Your task to perform on an android device: turn off javascript in the chrome app Image 0: 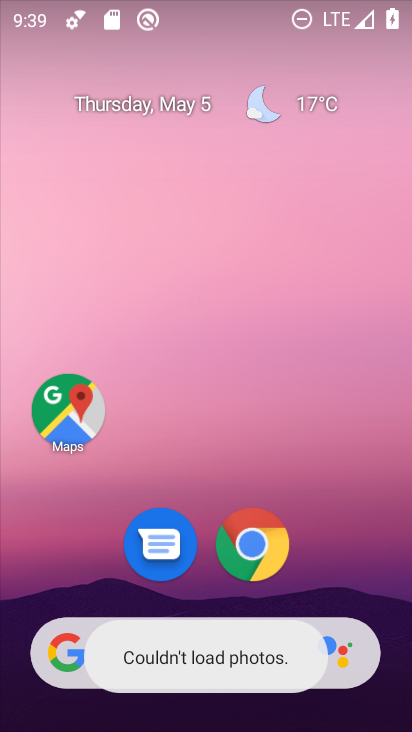
Step 0: drag from (389, 623) to (312, 57)
Your task to perform on an android device: turn off javascript in the chrome app Image 1: 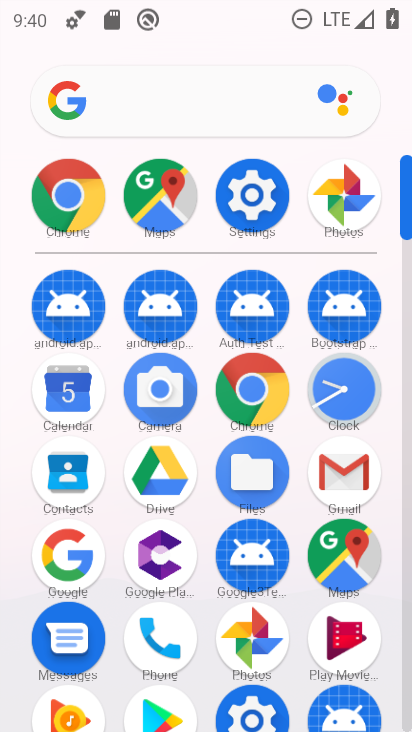
Step 1: click (82, 199)
Your task to perform on an android device: turn off javascript in the chrome app Image 2: 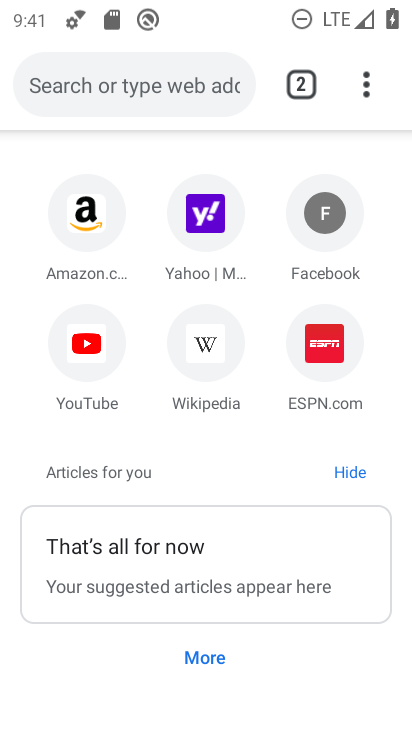
Step 2: click (365, 82)
Your task to perform on an android device: turn off javascript in the chrome app Image 3: 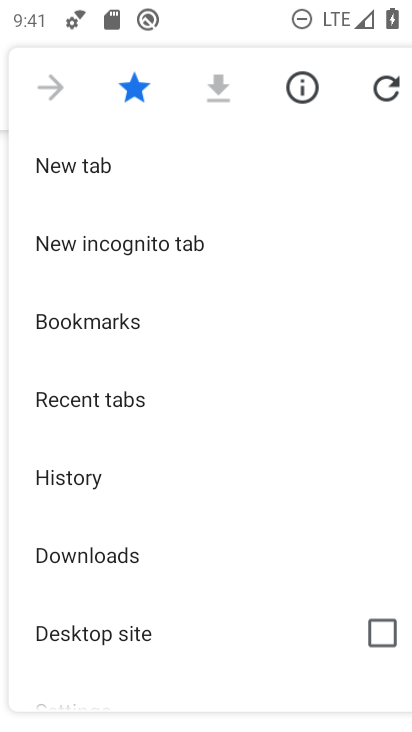
Step 3: drag from (141, 672) to (180, 183)
Your task to perform on an android device: turn off javascript in the chrome app Image 4: 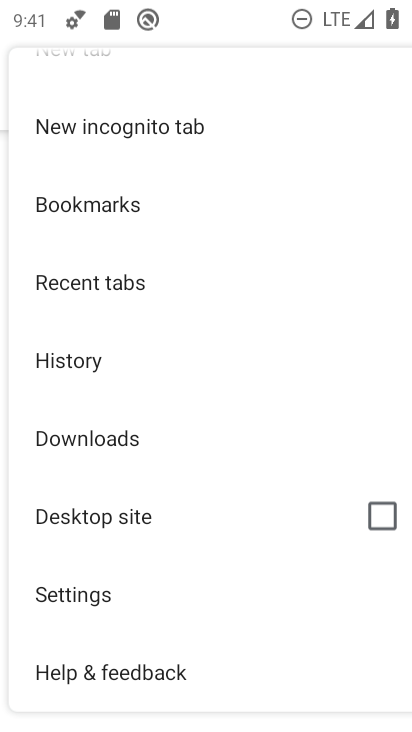
Step 4: click (125, 587)
Your task to perform on an android device: turn off javascript in the chrome app Image 5: 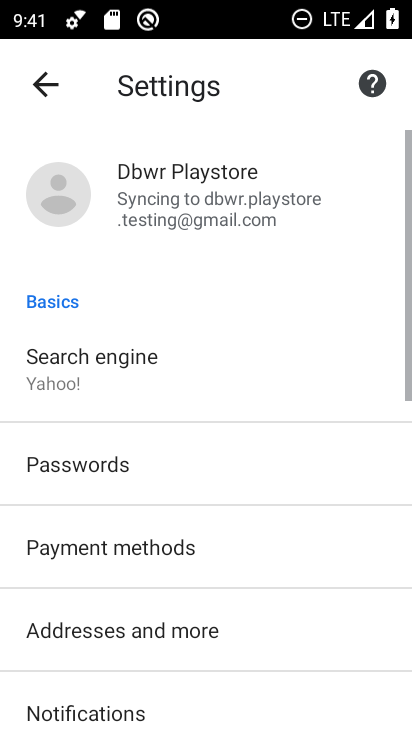
Step 5: drag from (125, 587) to (173, 196)
Your task to perform on an android device: turn off javascript in the chrome app Image 6: 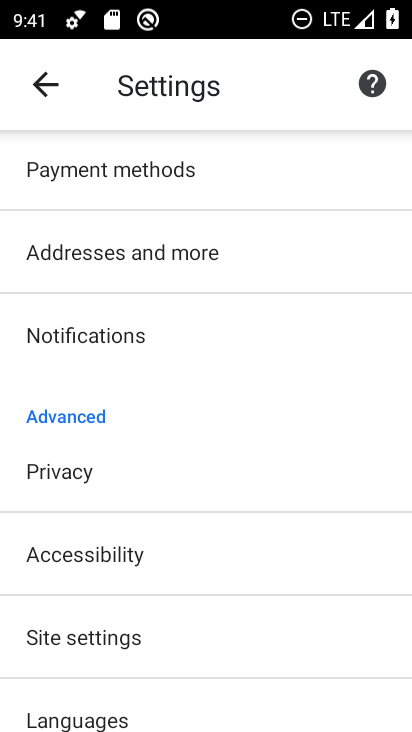
Step 6: drag from (158, 724) to (217, 293)
Your task to perform on an android device: turn off javascript in the chrome app Image 7: 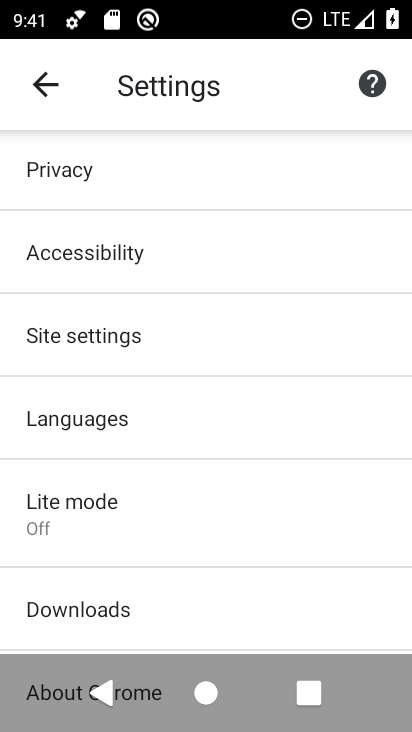
Step 7: click (158, 344)
Your task to perform on an android device: turn off javascript in the chrome app Image 8: 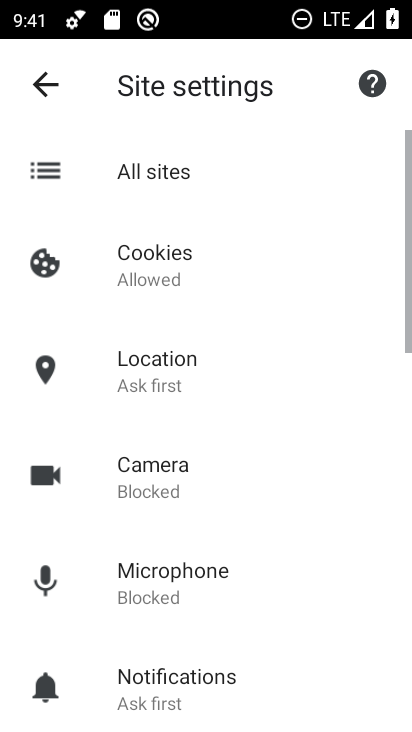
Step 8: drag from (211, 605) to (233, 205)
Your task to perform on an android device: turn off javascript in the chrome app Image 9: 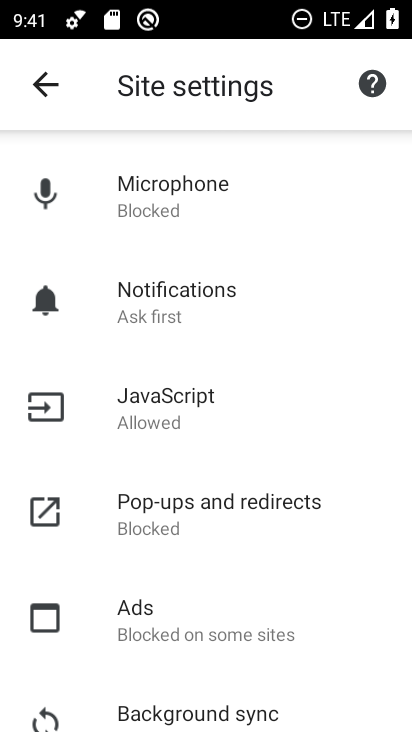
Step 9: click (174, 419)
Your task to perform on an android device: turn off javascript in the chrome app Image 10: 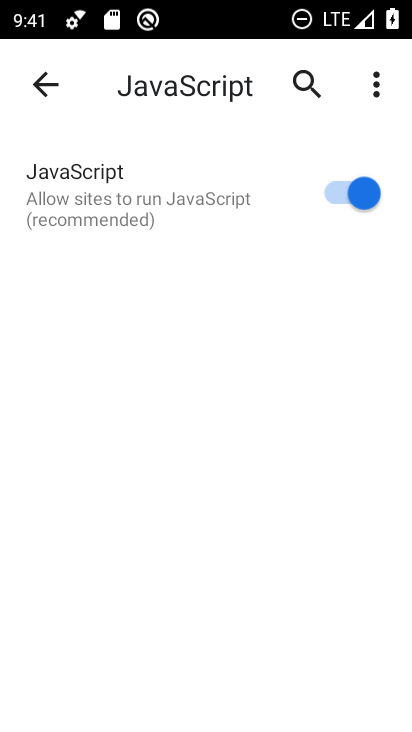
Step 10: click (345, 207)
Your task to perform on an android device: turn off javascript in the chrome app Image 11: 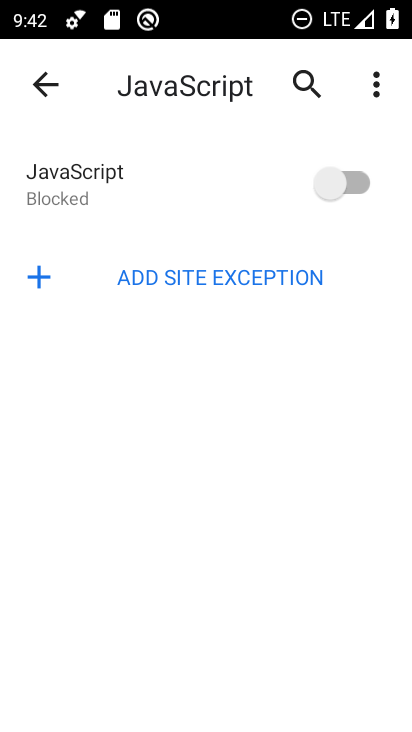
Step 11: task complete